Your task to perform on an android device: Open Chrome and go to the settings page Image 0: 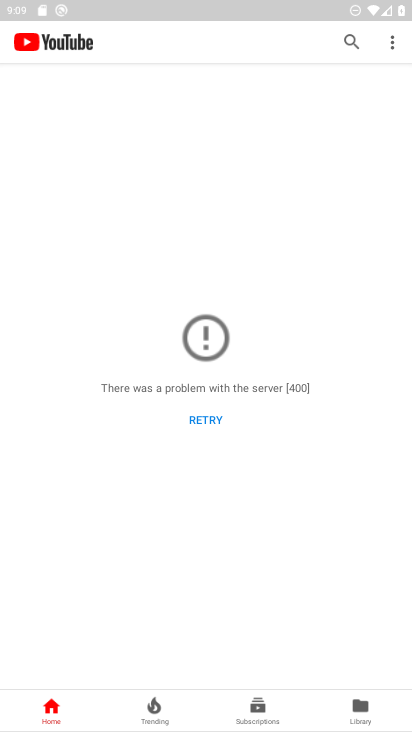
Step 0: press home button
Your task to perform on an android device: Open Chrome and go to the settings page Image 1: 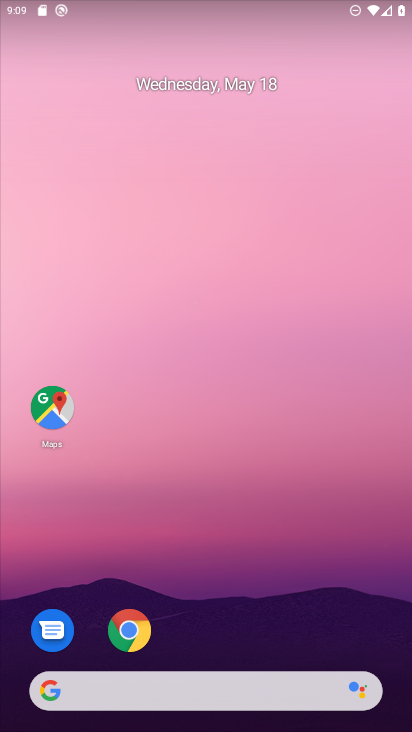
Step 1: click (134, 631)
Your task to perform on an android device: Open Chrome and go to the settings page Image 2: 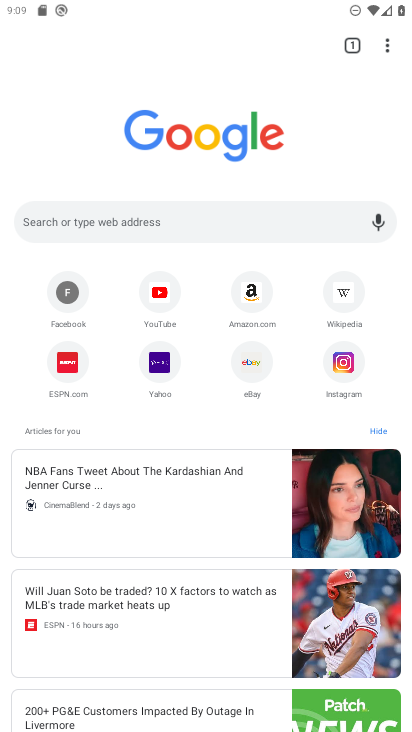
Step 2: click (390, 36)
Your task to perform on an android device: Open Chrome and go to the settings page Image 3: 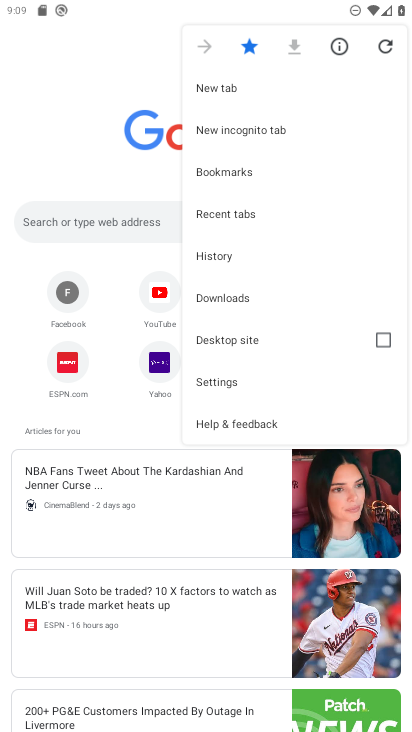
Step 3: click (239, 386)
Your task to perform on an android device: Open Chrome and go to the settings page Image 4: 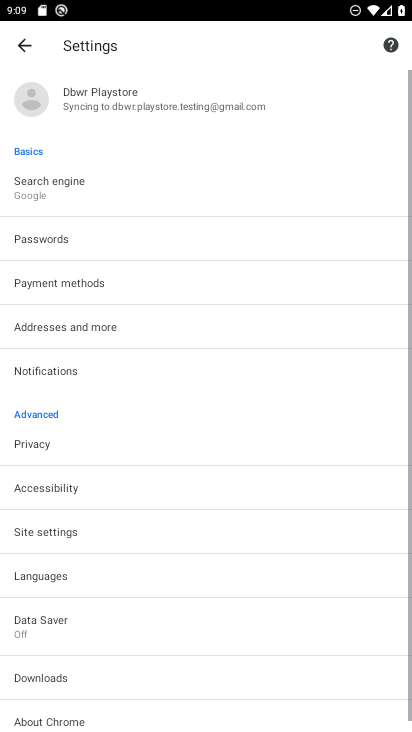
Step 4: task complete